Your task to perform on an android device: Turn off the flashlight Image 0: 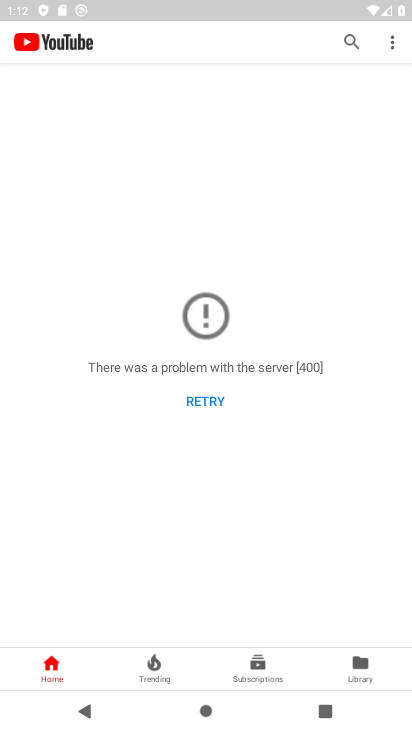
Step 0: press home button
Your task to perform on an android device: Turn off the flashlight Image 1: 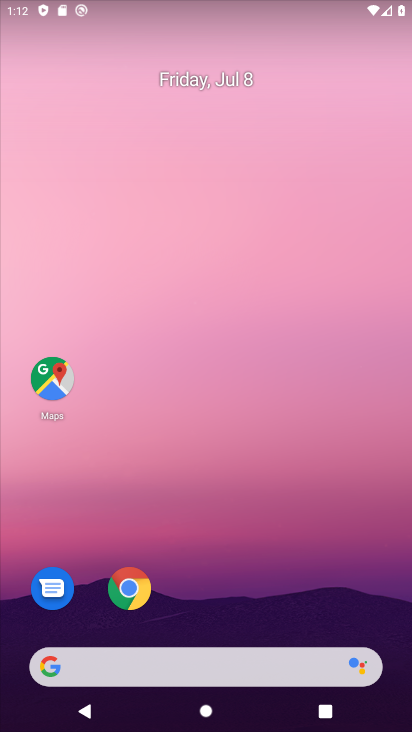
Step 1: task complete